Your task to perform on an android device: Go to Maps Image 0: 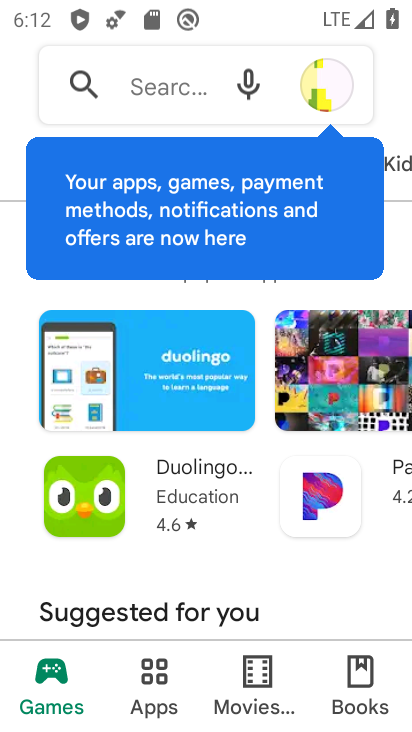
Step 0: press home button
Your task to perform on an android device: Go to Maps Image 1: 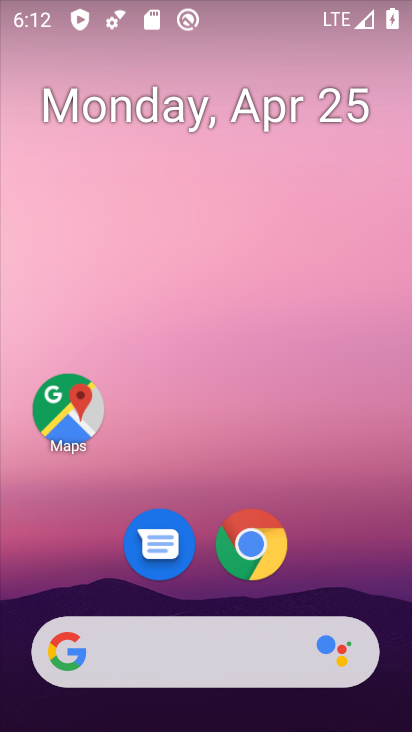
Step 1: click (66, 422)
Your task to perform on an android device: Go to Maps Image 2: 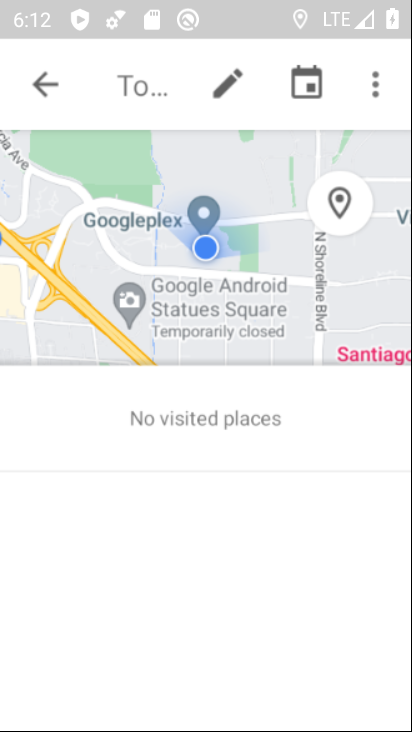
Step 2: click (66, 422)
Your task to perform on an android device: Go to Maps Image 3: 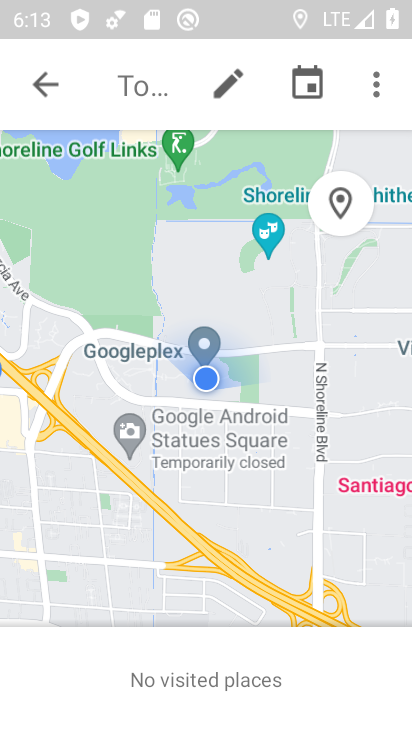
Step 3: task complete